Your task to perform on an android device: set the timer Image 0: 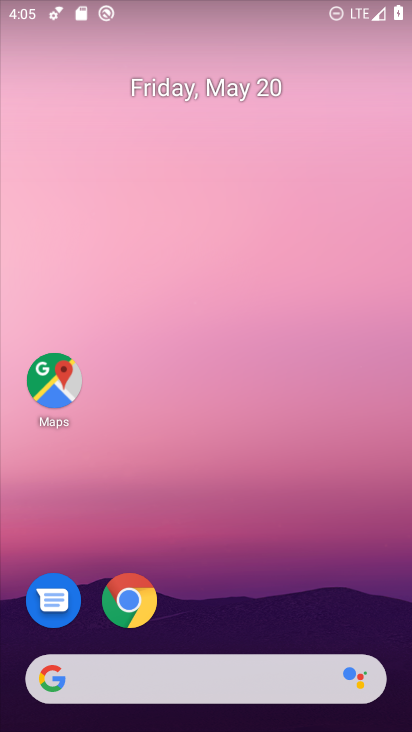
Step 0: drag from (254, 573) to (299, 123)
Your task to perform on an android device: set the timer Image 1: 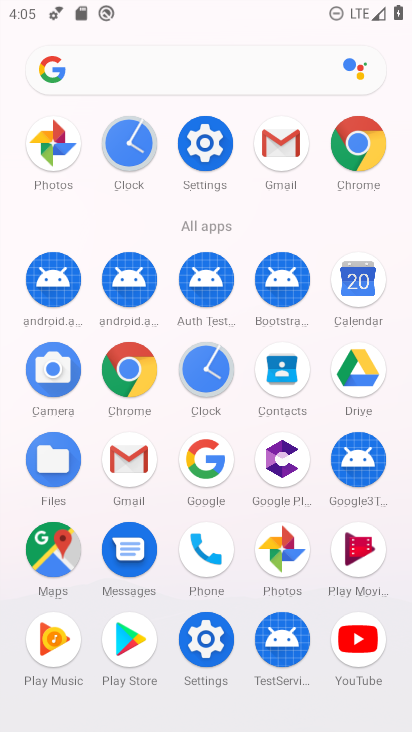
Step 1: click (207, 363)
Your task to perform on an android device: set the timer Image 2: 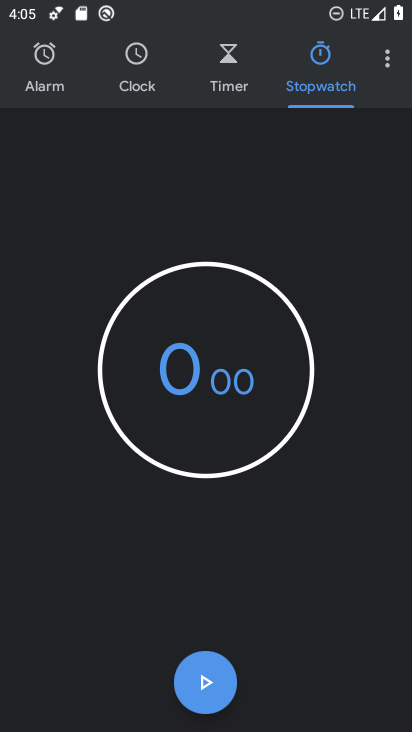
Step 2: click (250, 63)
Your task to perform on an android device: set the timer Image 3: 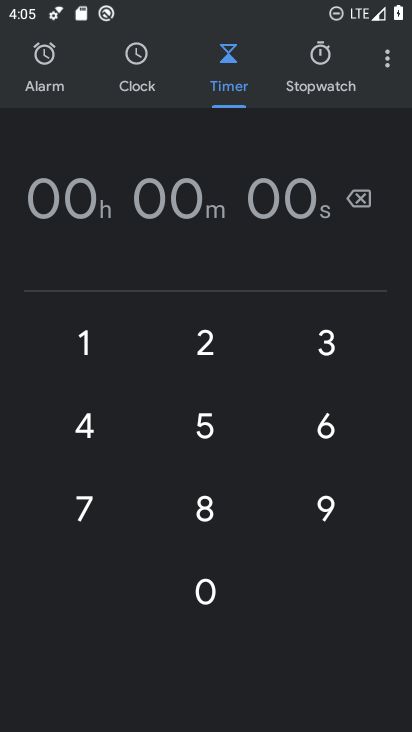
Step 3: click (199, 341)
Your task to perform on an android device: set the timer Image 4: 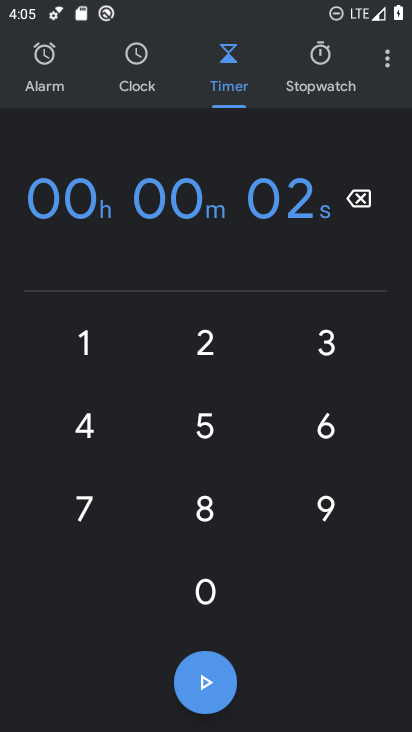
Step 4: click (199, 411)
Your task to perform on an android device: set the timer Image 5: 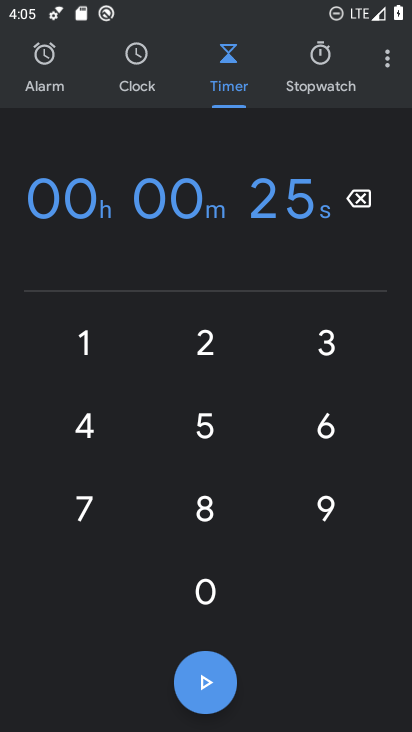
Step 5: click (312, 333)
Your task to perform on an android device: set the timer Image 6: 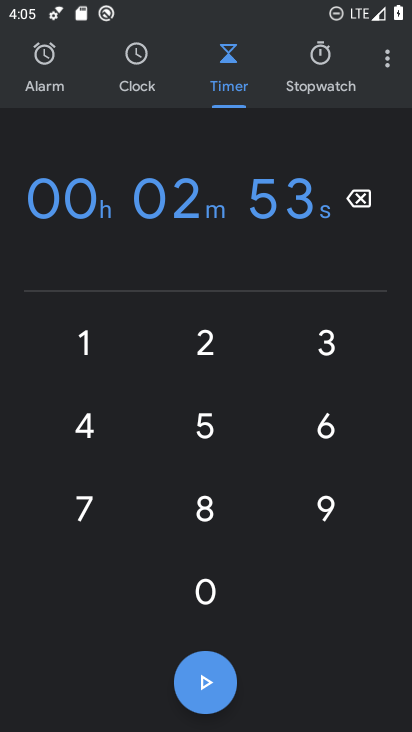
Step 6: click (192, 350)
Your task to perform on an android device: set the timer Image 7: 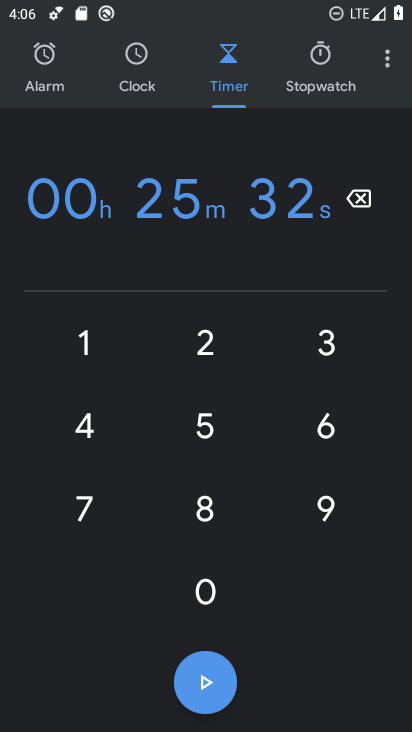
Step 7: task complete